Your task to perform on an android device: Check the weather Image 0: 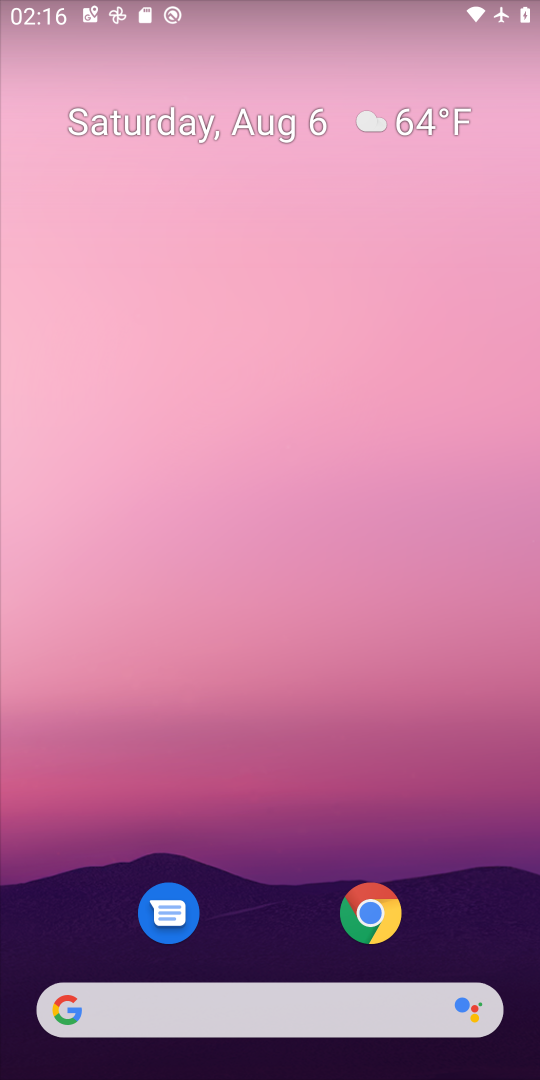
Step 0: press home button
Your task to perform on an android device: Check the weather Image 1: 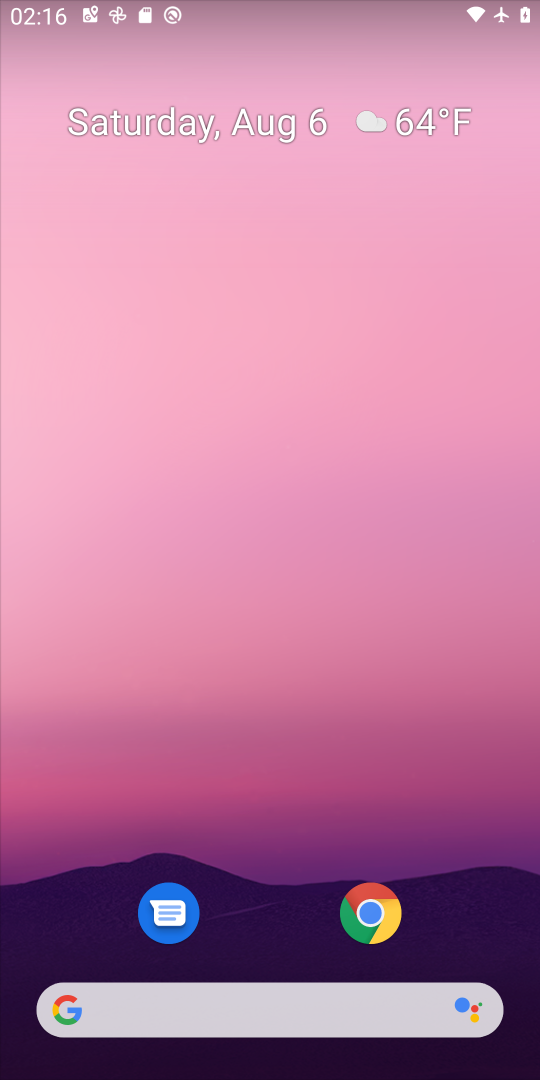
Step 1: click (247, 1015)
Your task to perform on an android device: Check the weather Image 2: 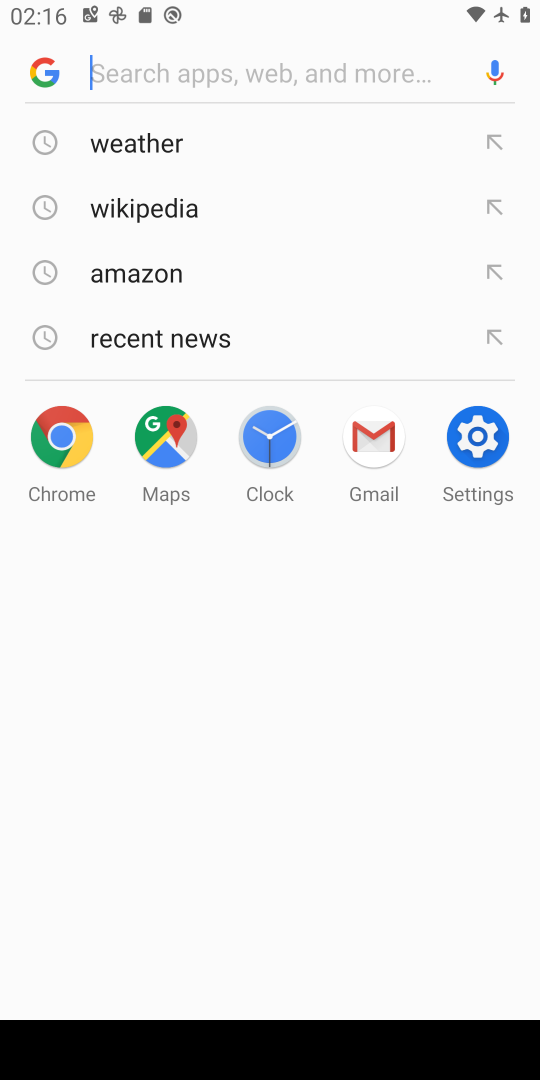
Step 2: click (193, 140)
Your task to perform on an android device: Check the weather Image 3: 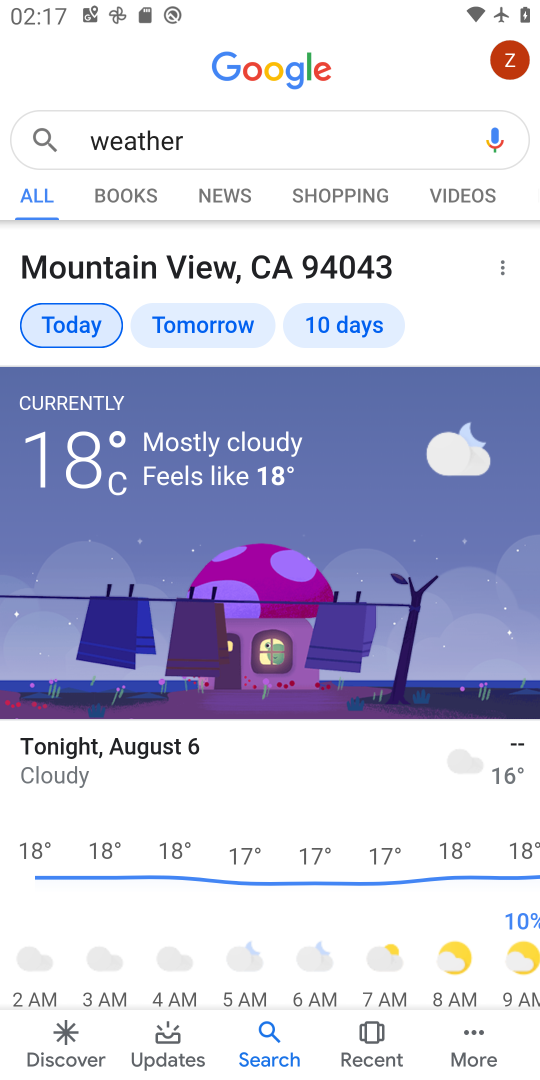
Step 3: task complete